Your task to perform on an android device: delete the emails in spam in the gmail app Image 0: 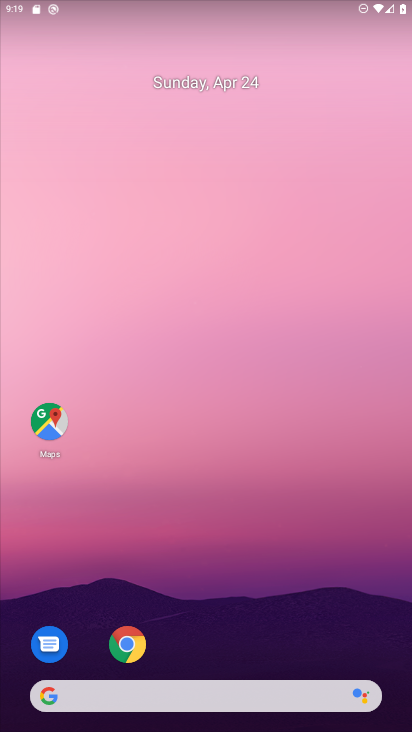
Step 0: drag from (212, 649) to (373, 32)
Your task to perform on an android device: delete the emails in spam in the gmail app Image 1: 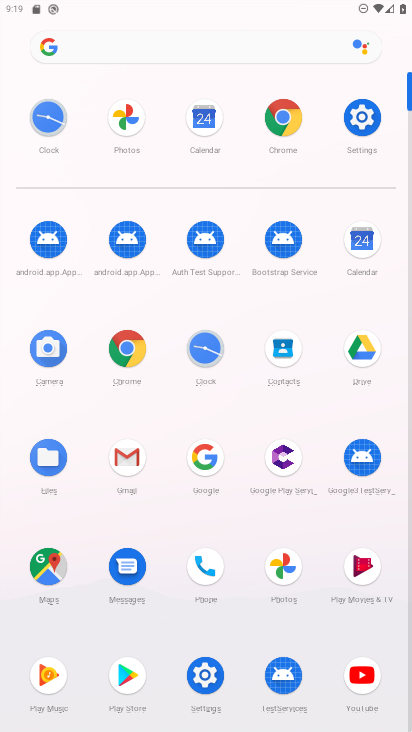
Step 1: click (122, 446)
Your task to perform on an android device: delete the emails in spam in the gmail app Image 2: 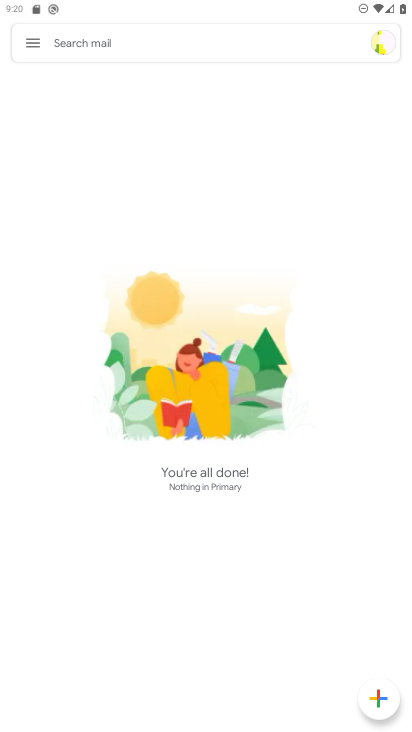
Step 2: task complete